Your task to perform on an android device: Show the shopping cart on target.com. Add "lenovo thinkpad" to the cart on target.com, then select checkout. Image 0: 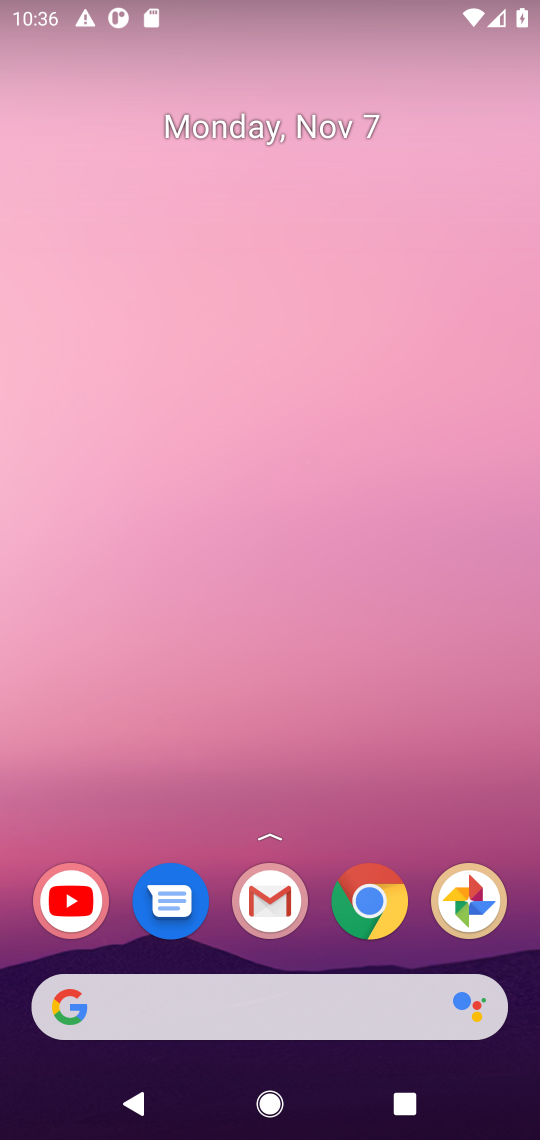
Step 0: click (365, 891)
Your task to perform on an android device: Show the shopping cart on target.com. Add "lenovo thinkpad" to the cart on target.com, then select checkout. Image 1: 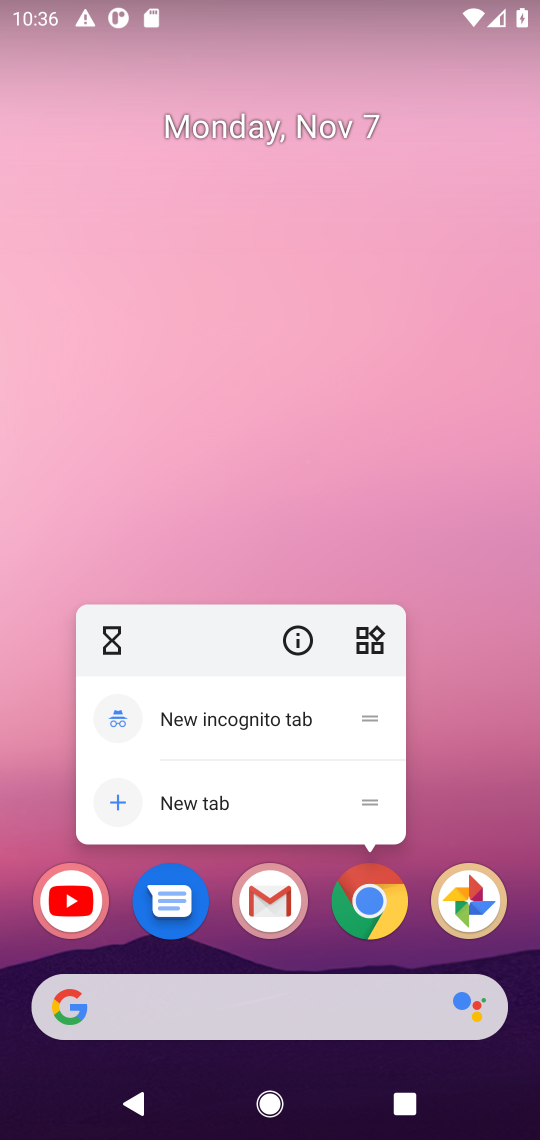
Step 1: click (363, 910)
Your task to perform on an android device: Show the shopping cart on target.com. Add "lenovo thinkpad" to the cart on target.com, then select checkout. Image 2: 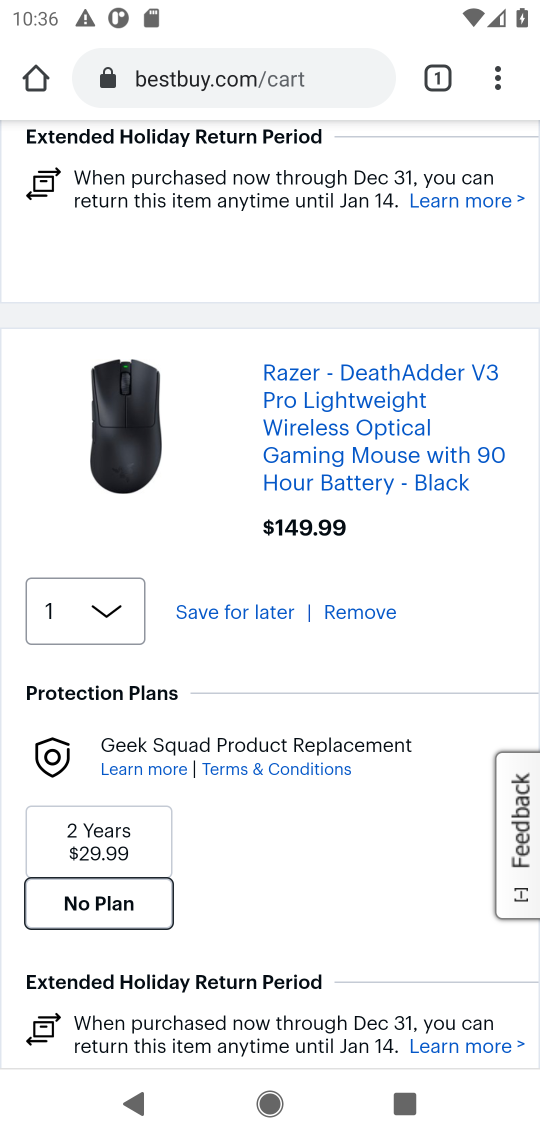
Step 2: click (230, 76)
Your task to perform on an android device: Show the shopping cart on target.com. Add "lenovo thinkpad" to the cart on target.com, then select checkout. Image 3: 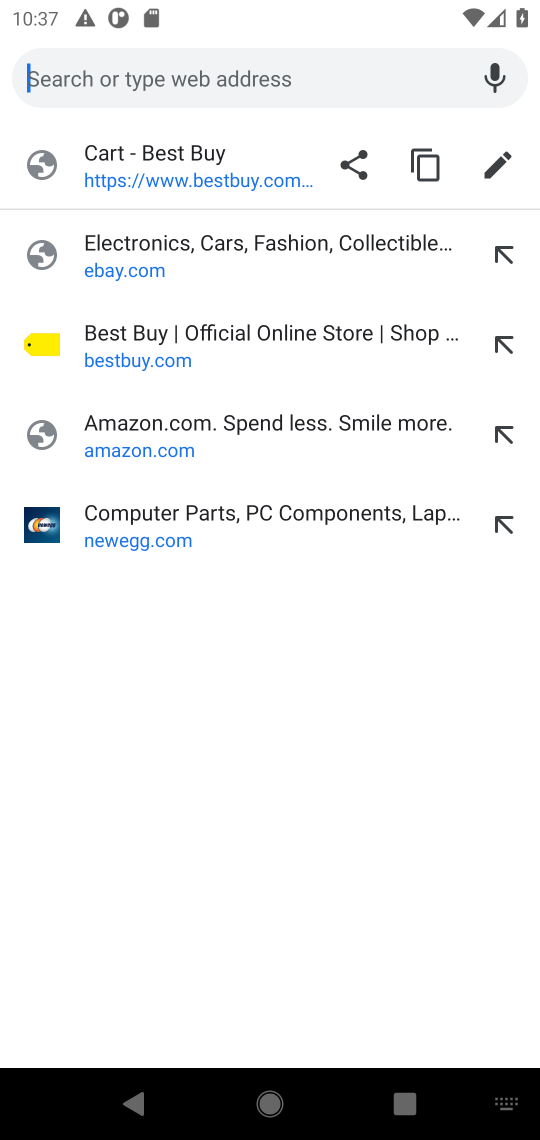
Step 3: type "target.com"
Your task to perform on an android device: Show the shopping cart on target.com. Add "lenovo thinkpad" to the cart on target.com, then select checkout. Image 4: 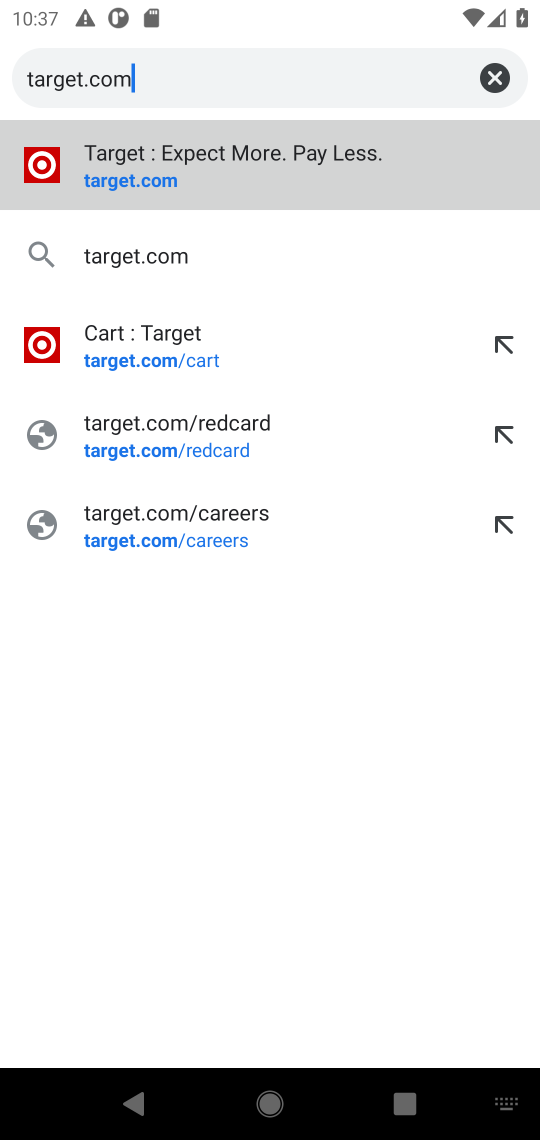
Step 4: click (338, 178)
Your task to perform on an android device: Show the shopping cart on target.com. Add "lenovo thinkpad" to the cart on target.com, then select checkout. Image 5: 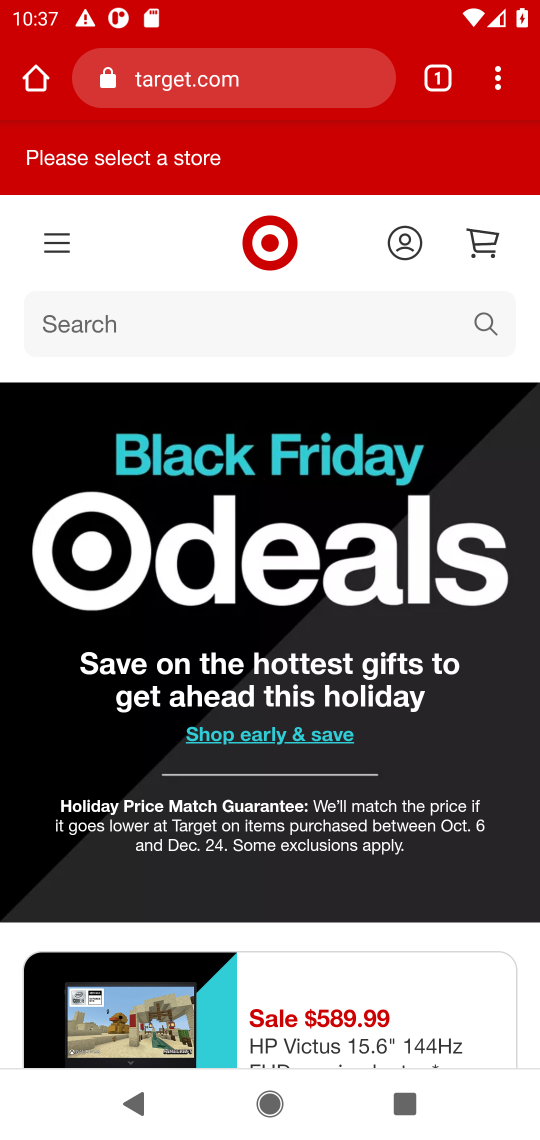
Step 5: click (246, 309)
Your task to perform on an android device: Show the shopping cart on target.com. Add "lenovo thinkpad" to the cart on target.com, then select checkout. Image 6: 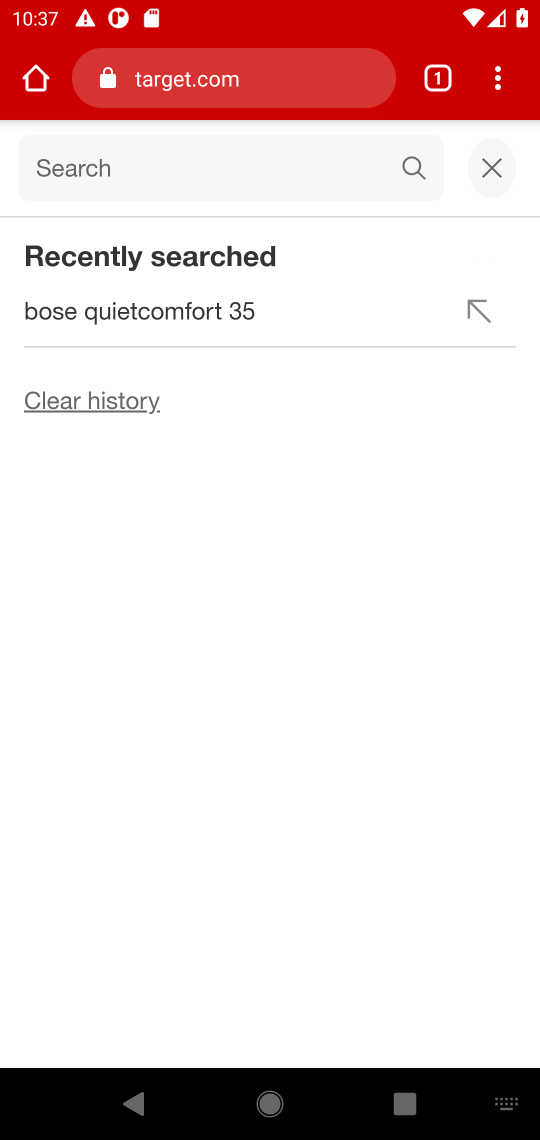
Step 6: type "lenovo thinkpad"
Your task to perform on an android device: Show the shopping cart on target.com. Add "lenovo thinkpad" to the cart on target.com, then select checkout. Image 7: 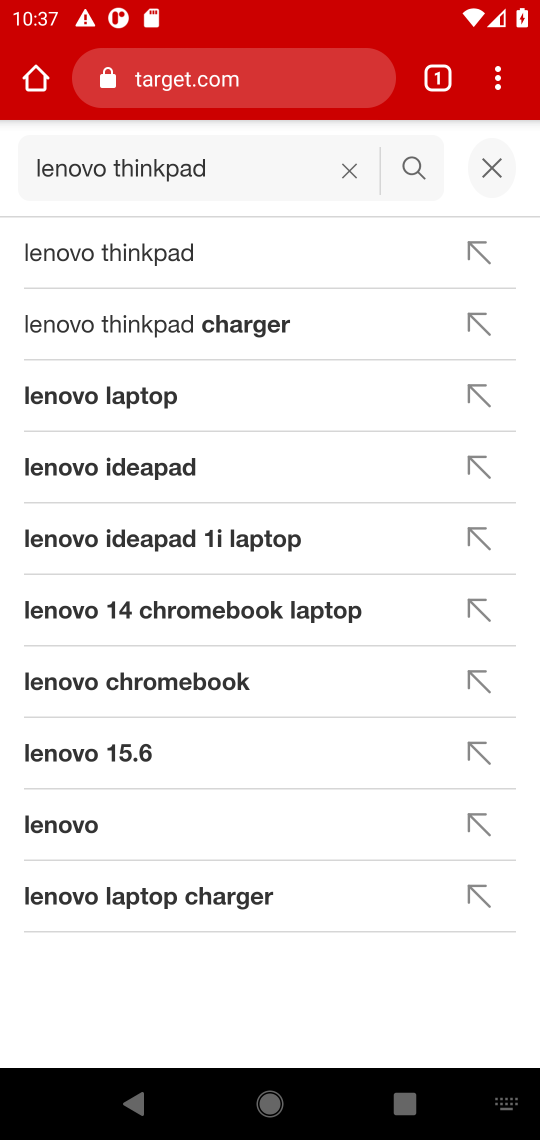
Step 7: click (108, 271)
Your task to perform on an android device: Show the shopping cart on target.com. Add "lenovo thinkpad" to the cart on target.com, then select checkout. Image 8: 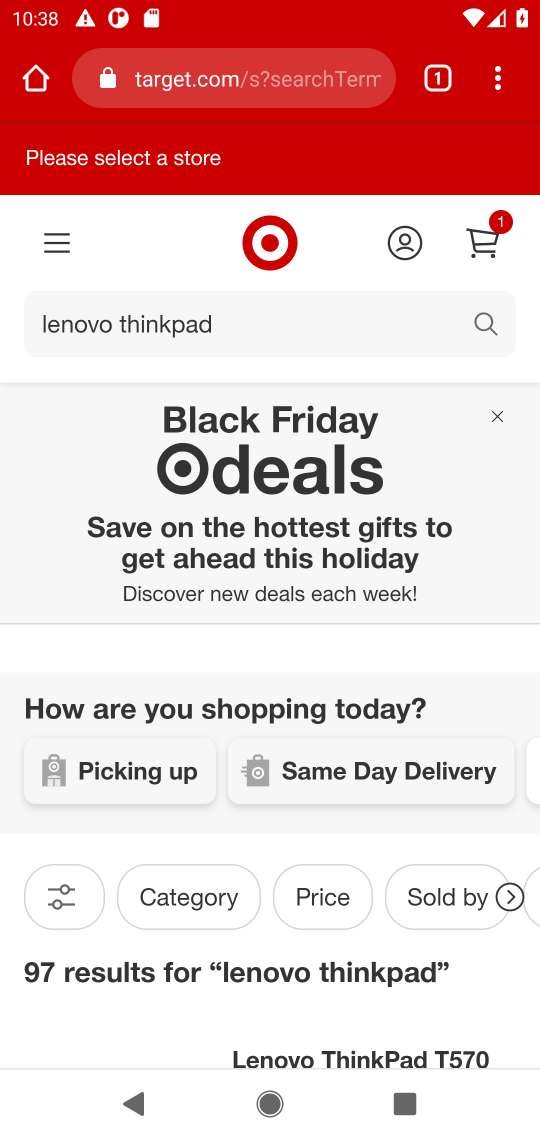
Step 8: drag from (362, 872) to (225, 12)
Your task to perform on an android device: Show the shopping cart on target.com. Add "lenovo thinkpad" to the cart on target.com, then select checkout. Image 9: 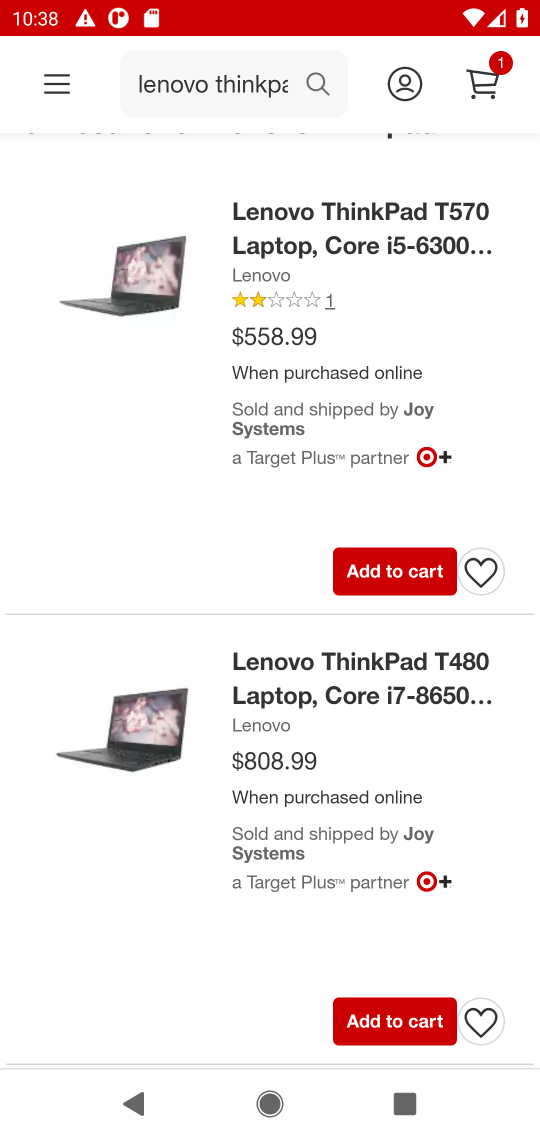
Step 9: click (359, 564)
Your task to perform on an android device: Show the shopping cart on target.com. Add "lenovo thinkpad" to the cart on target.com, then select checkout. Image 10: 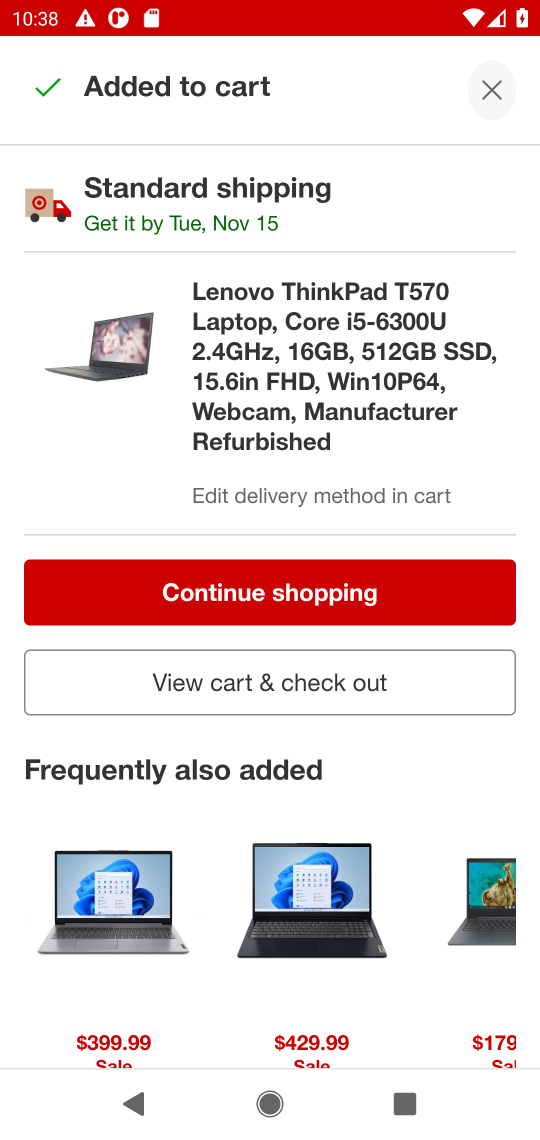
Step 10: click (364, 697)
Your task to perform on an android device: Show the shopping cart on target.com. Add "lenovo thinkpad" to the cart on target.com, then select checkout. Image 11: 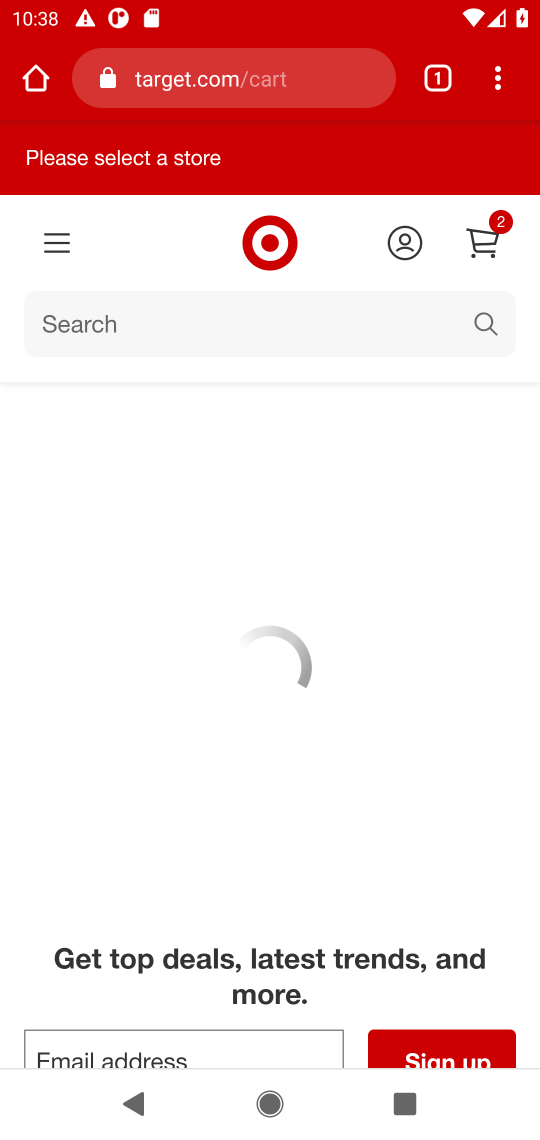
Step 11: task complete